Your task to perform on an android device: View the shopping cart on newegg. Search for "razer deathadder" on newegg, select the first entry, add it to the cart, then select checkout. Image 0: 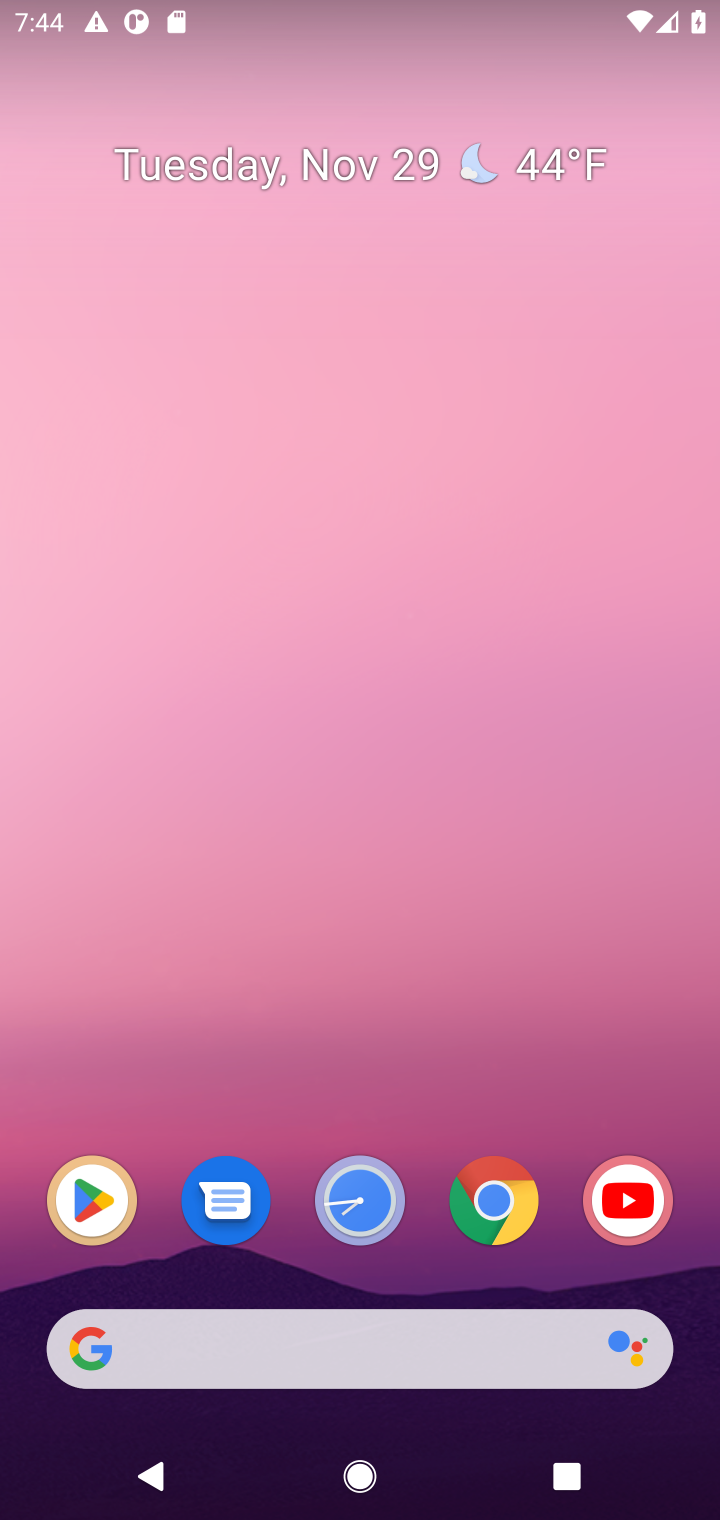
Step 0: click (407, 1378)
Your task to perform on an android device: View the shopping cart on newegg. Search for "razer deathadder" on newegg, select the first entry, add it to the cart, then select checkout. Image 1: 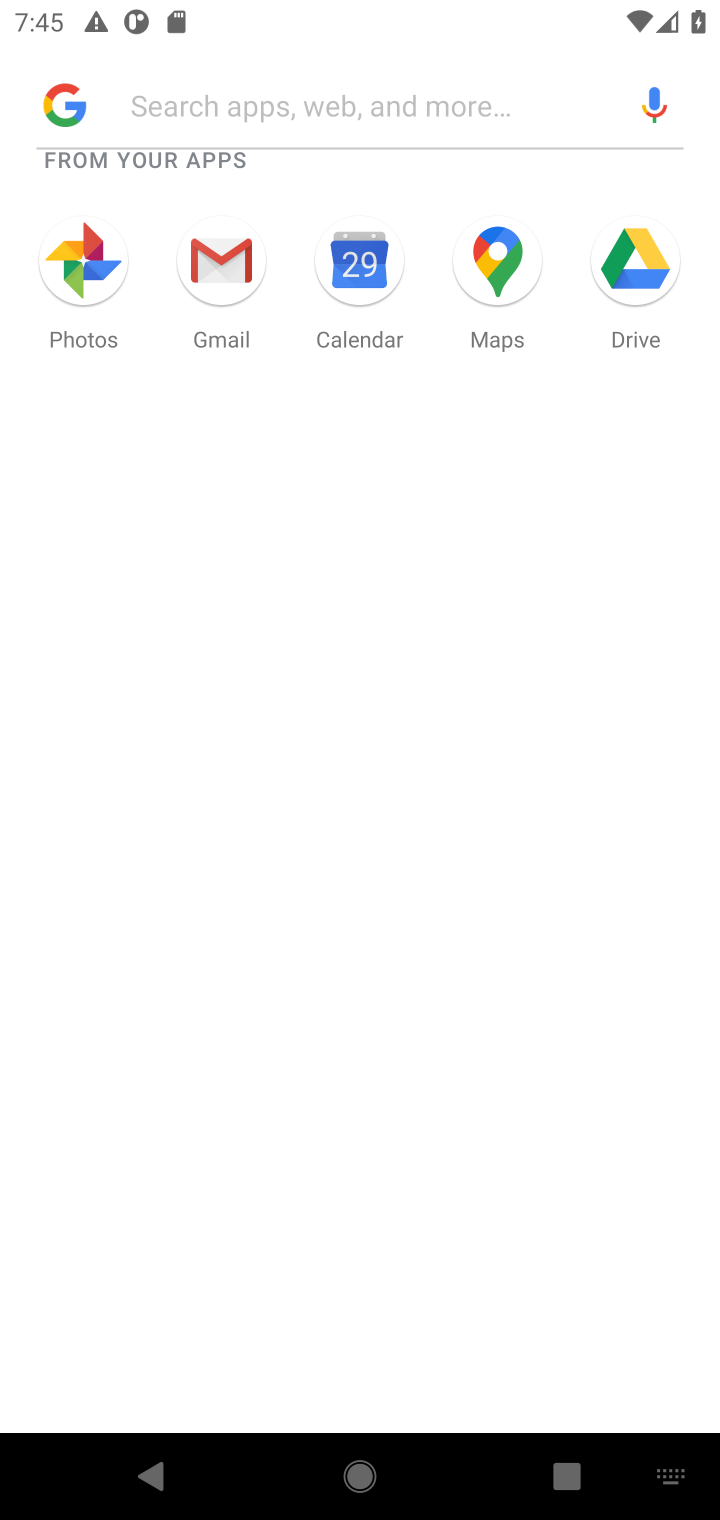
Step 1: type "razer deathadder"
Your task to perform on an android device: View the shopping cart on newegg. Search for "razer deathadder" on newegg, select the first entry, add it to the cart, then select checkout. Image 2: 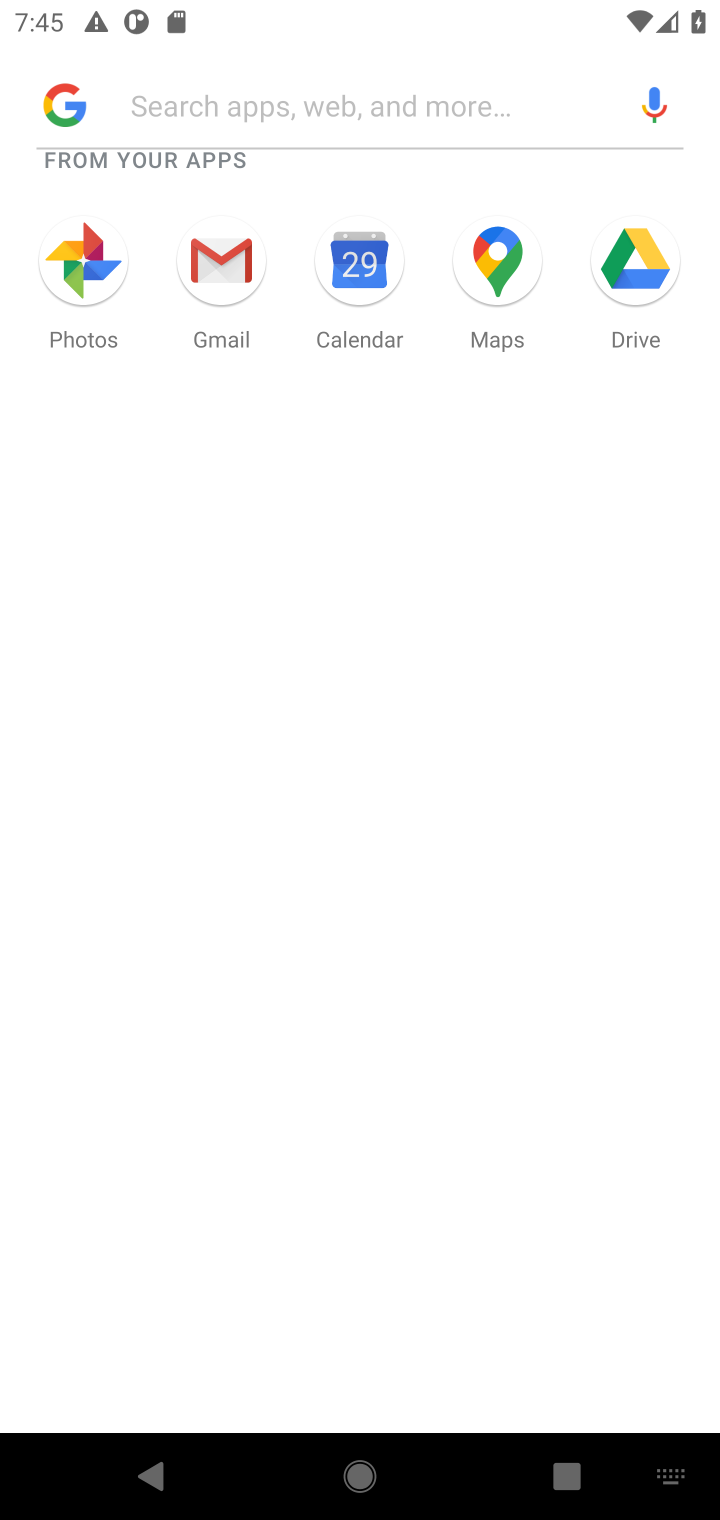
Step 2: click (305, 116)
Your task to perform on an android device: View the shopping cart on newegg. Search for "razer deathadder" on newegg, select the first entry, add it to the cart, then select checkout. Image 3: 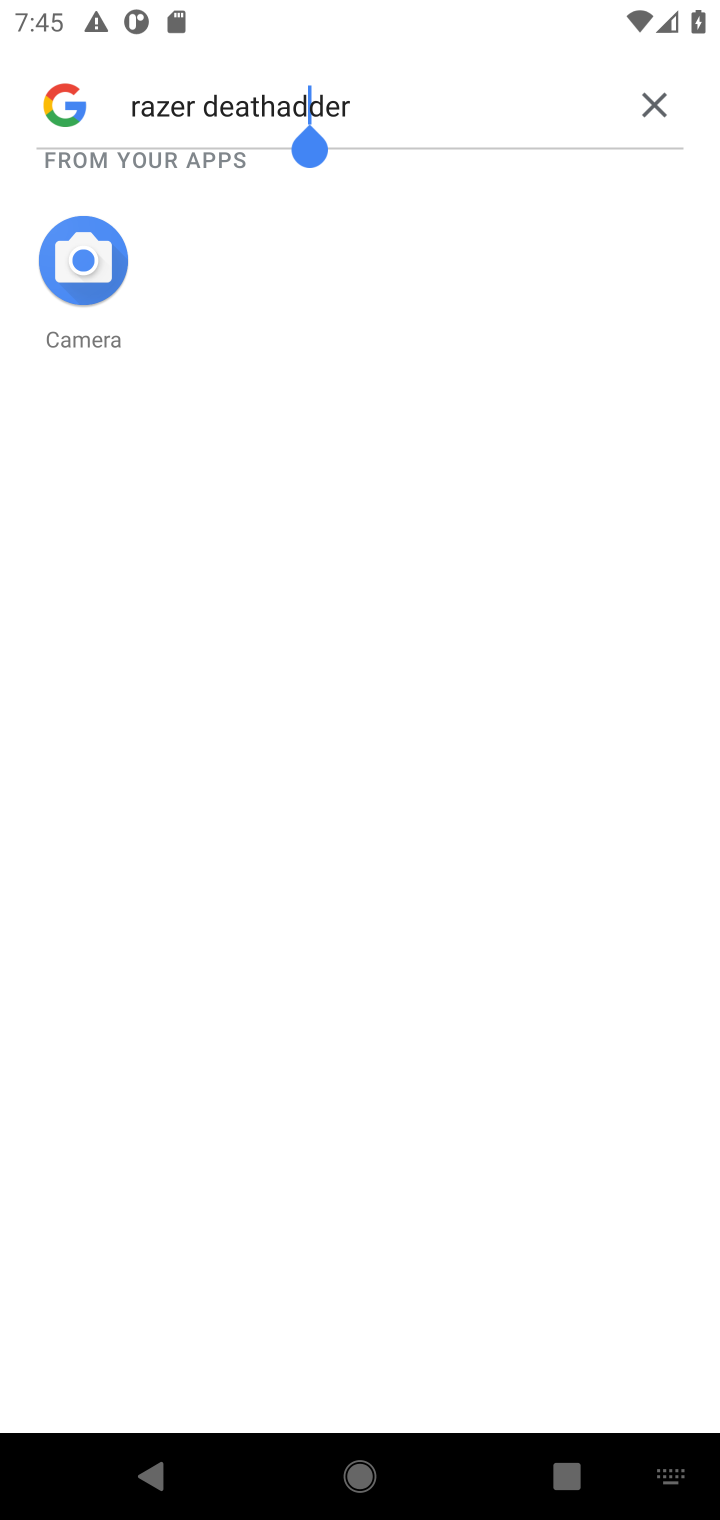
Step 3: press home button
Your task to perform on an android device: View the shopping cart on newegg. Search for "razer deathadder" on newegg, select the first entry, add it to the cart, then select checkout. Image 4: 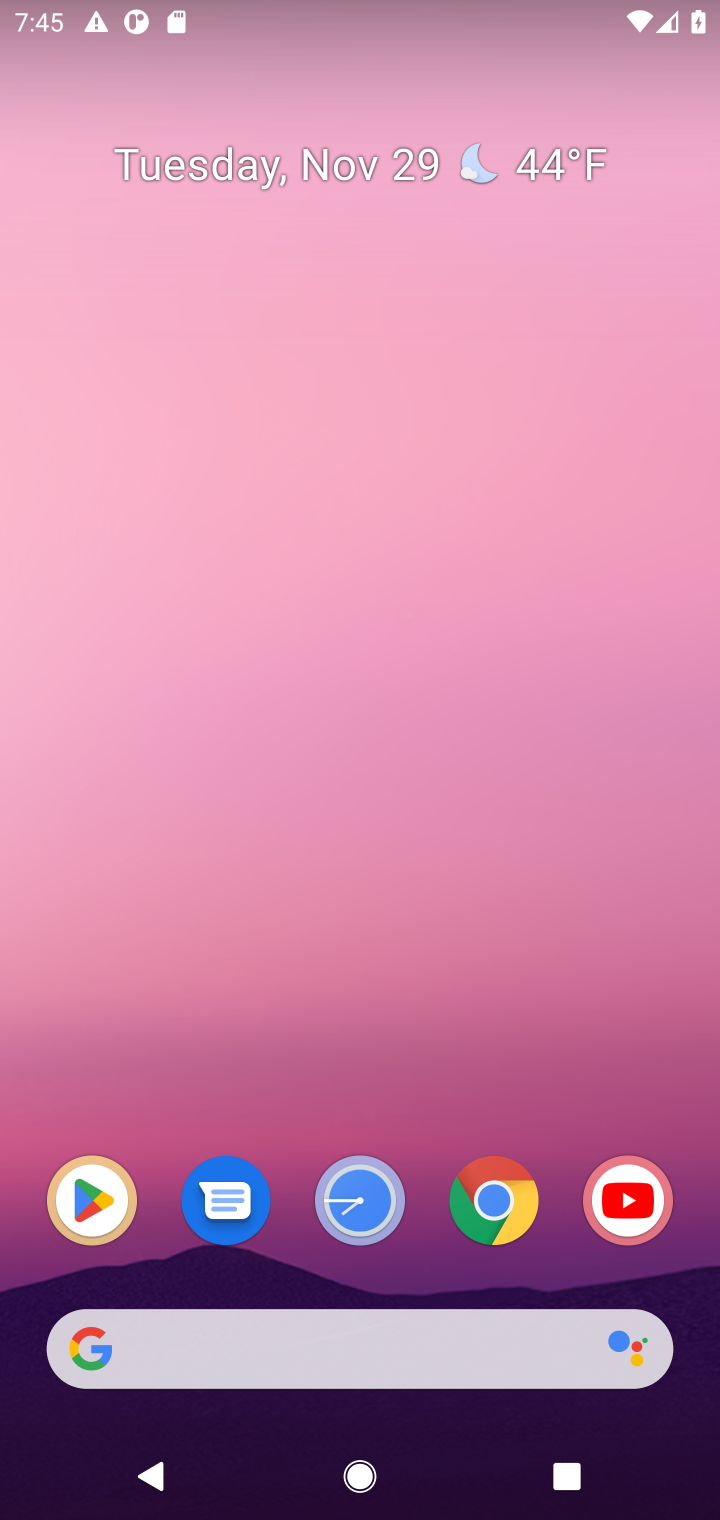
Step 4: click (414, 1336)
Your task to perform on an android device: View the shopping cart on newegg. Search for "razer deathadder" on newegg, select the first entry, add it to the cart, then select checkout. Image 5: 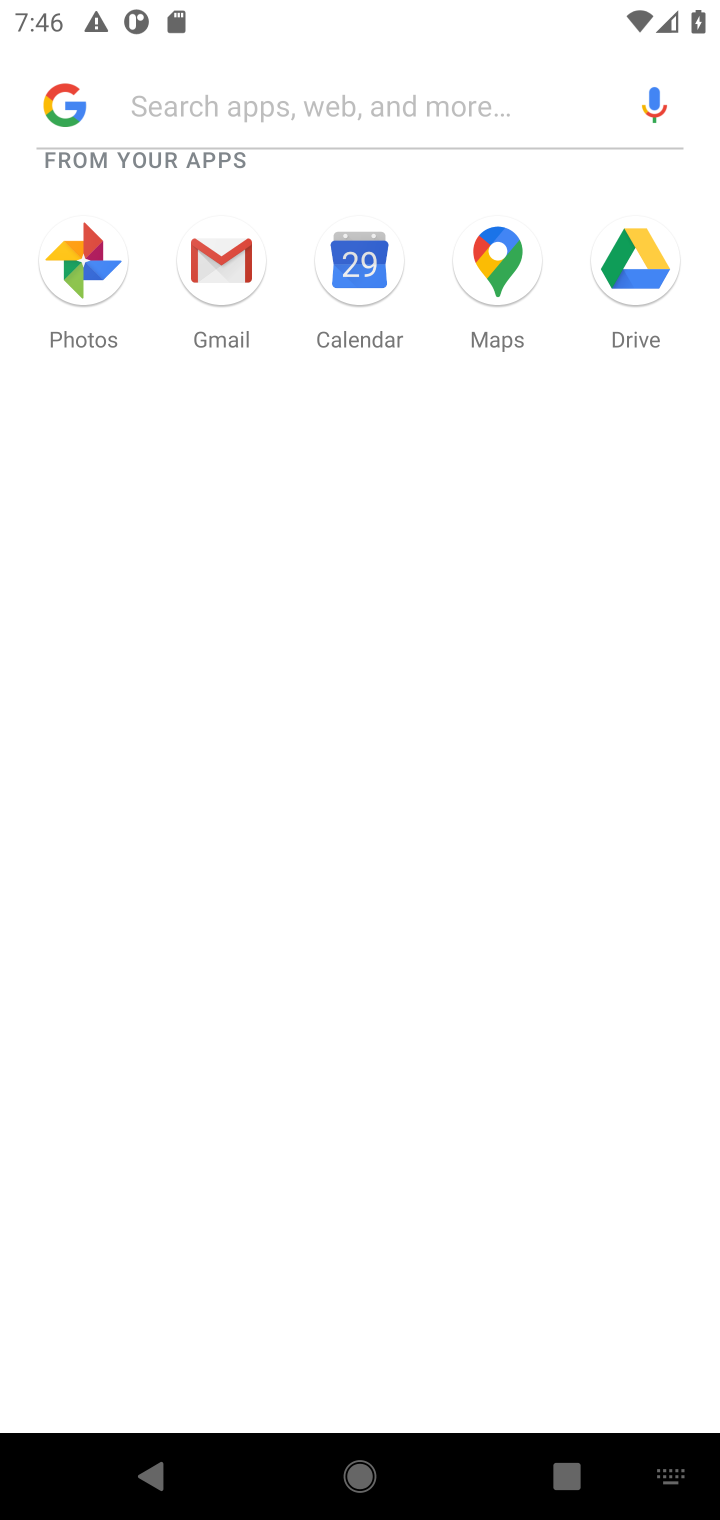
Step 5: type "newegg.com"
Your task to perform on an android device: View the shopping cart on newegg. Search for "razer deathadder" on newegg, select the first entry, add it to the cart, then select checkout. Image 6: 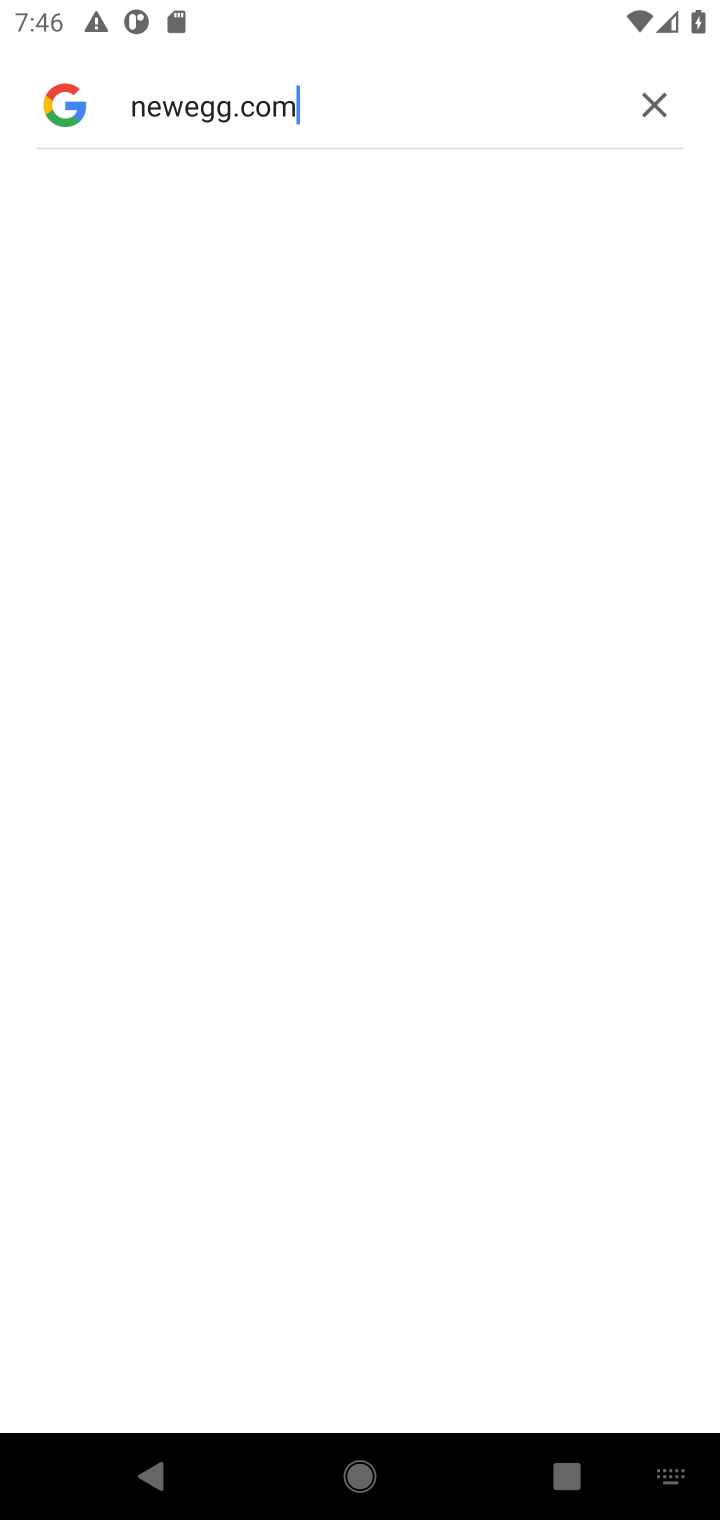
Step 6: press home button
Your task to perform on an android device: View the shopping cart on newegg. Search for "razer deathadder" on newegg, select the first entry, add it to the cart, then select checkout. Image 7: 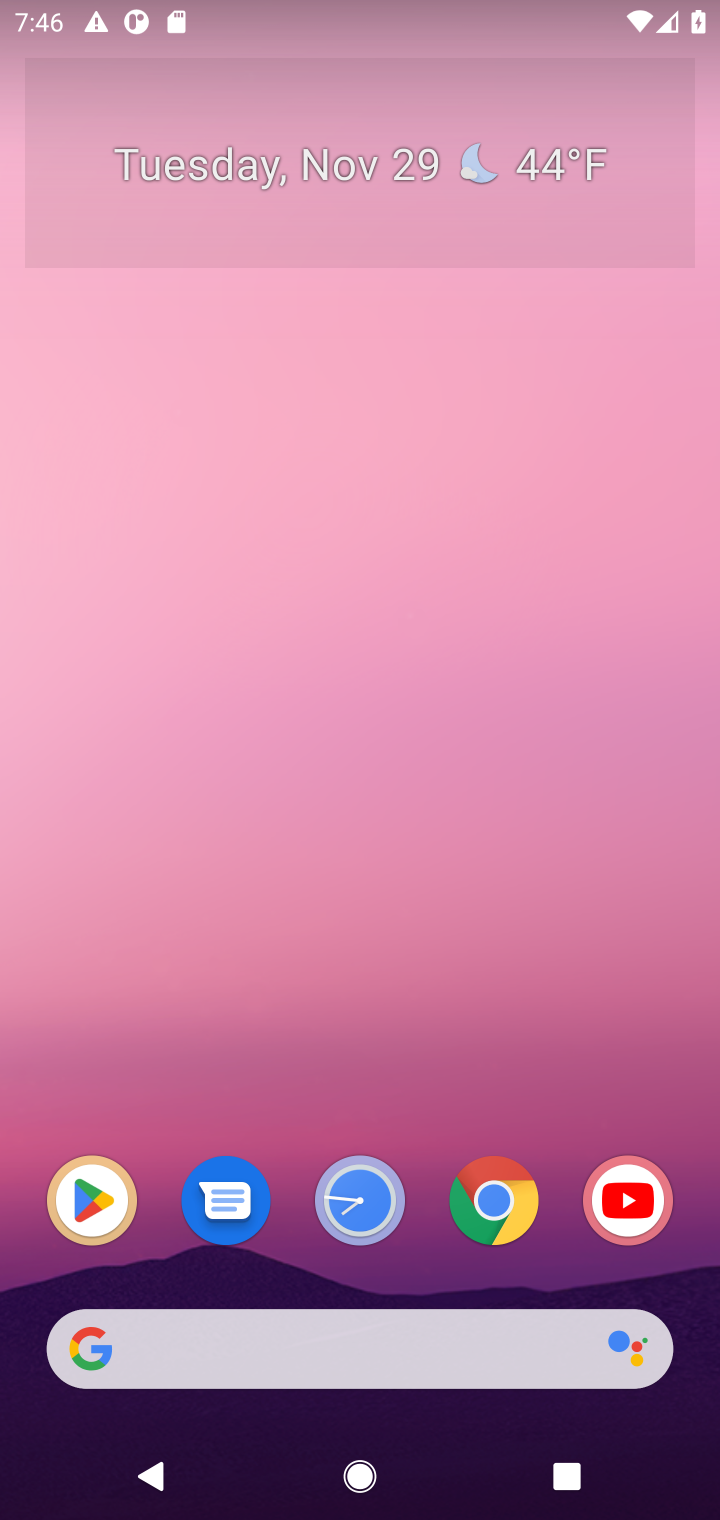
Step 7: click (481, 1224)
Your task to perform on an android device: View the shopping cart on newegg. Search for "razer deathadder" on newegg, select the first entry, add it to the cart, then select checkout. Image 8: 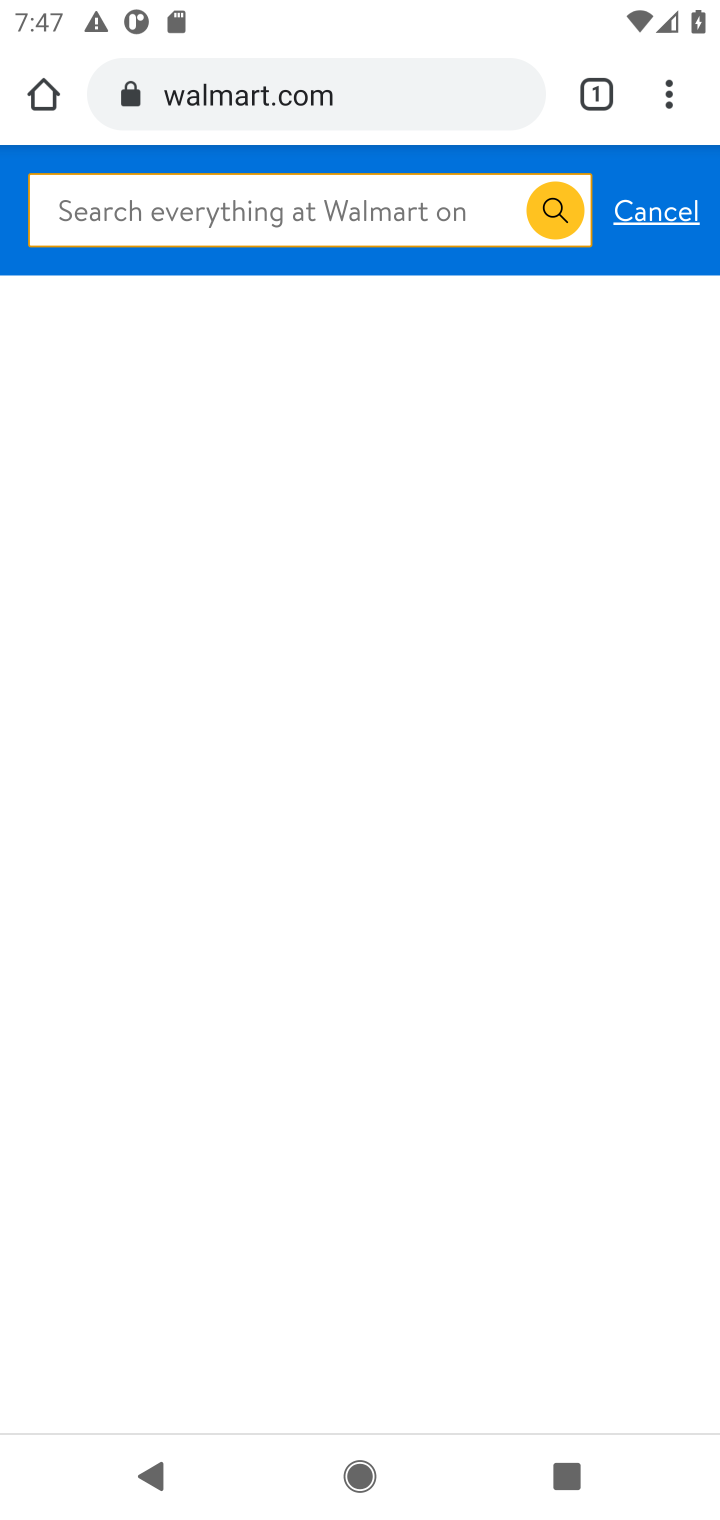
Step 8: task complete